Your task to perform on an android device: open app "Life360: Find Family & Friends" (install if not already installed), go to login, and select forgot password Image 0: 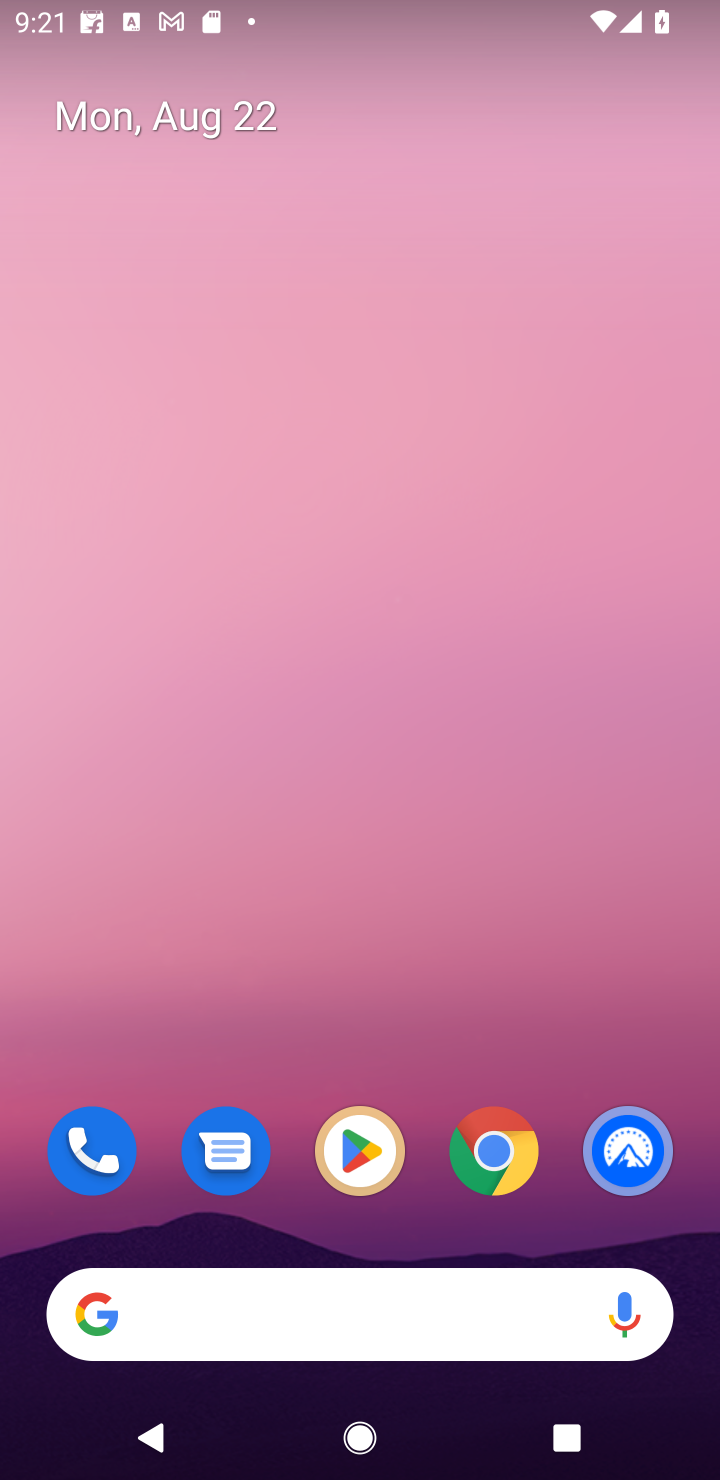
Step 0: click (366, 1142)
Your task to perform on an android device: open app "Life360: Find Family & Friends" (install if not already installed), go to login, and select forgot password Image 1: 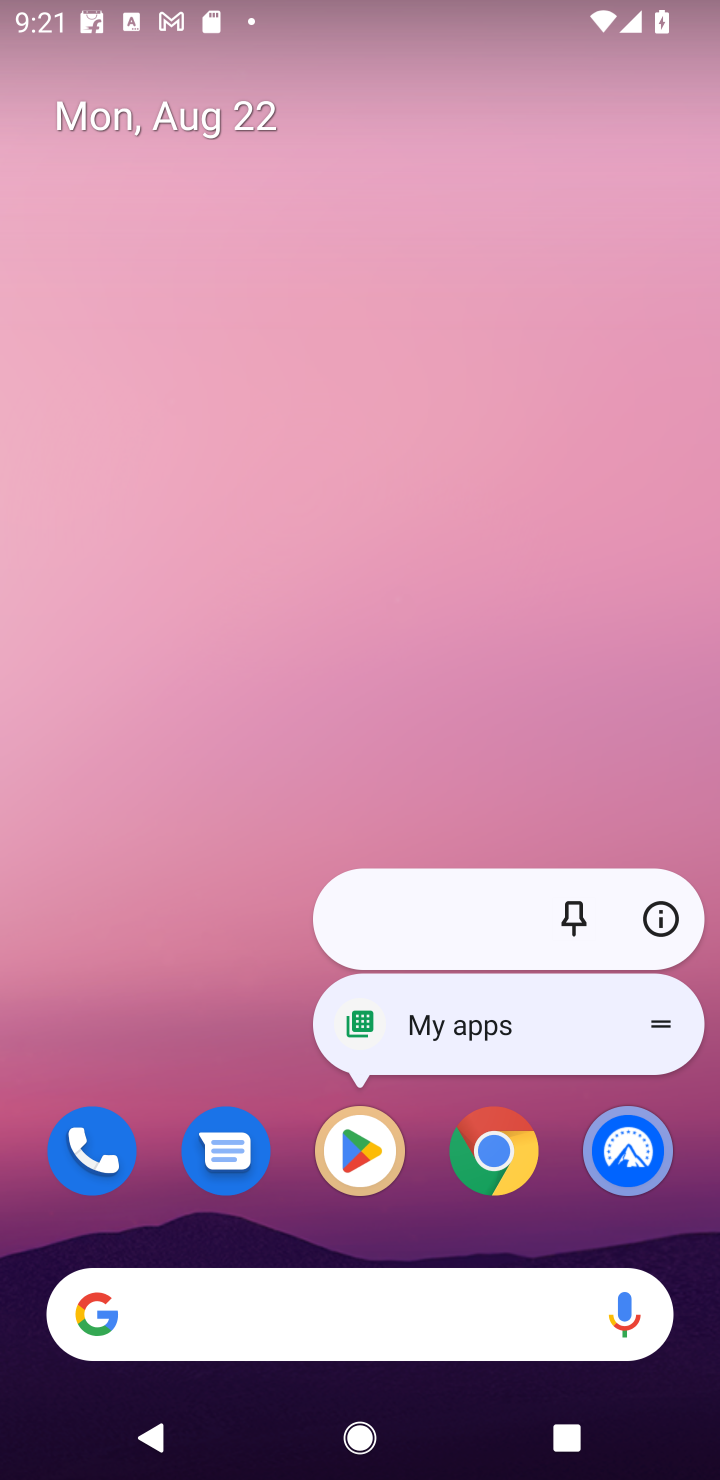
Step 1: click (366, 1147)
Your task to perform on an android device: open app "Life360: Find Family & Friends" (install if not already installed), go to login, and select forgot password Image 2: 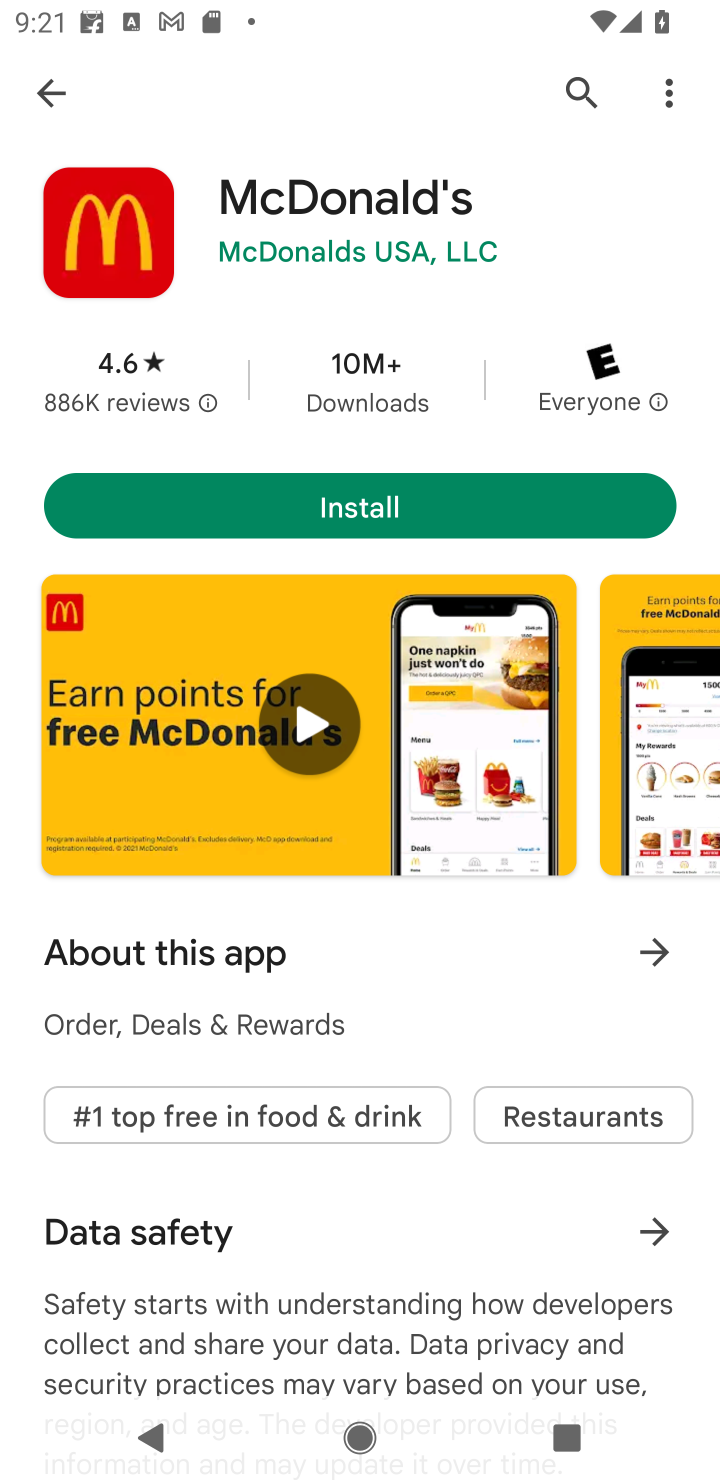
Step 2: click (581, 96)
Your task to perform on an android device: open app "Life360: Find Family & Friends" (install if not already installed), go to login, and select forgot password Image 3: 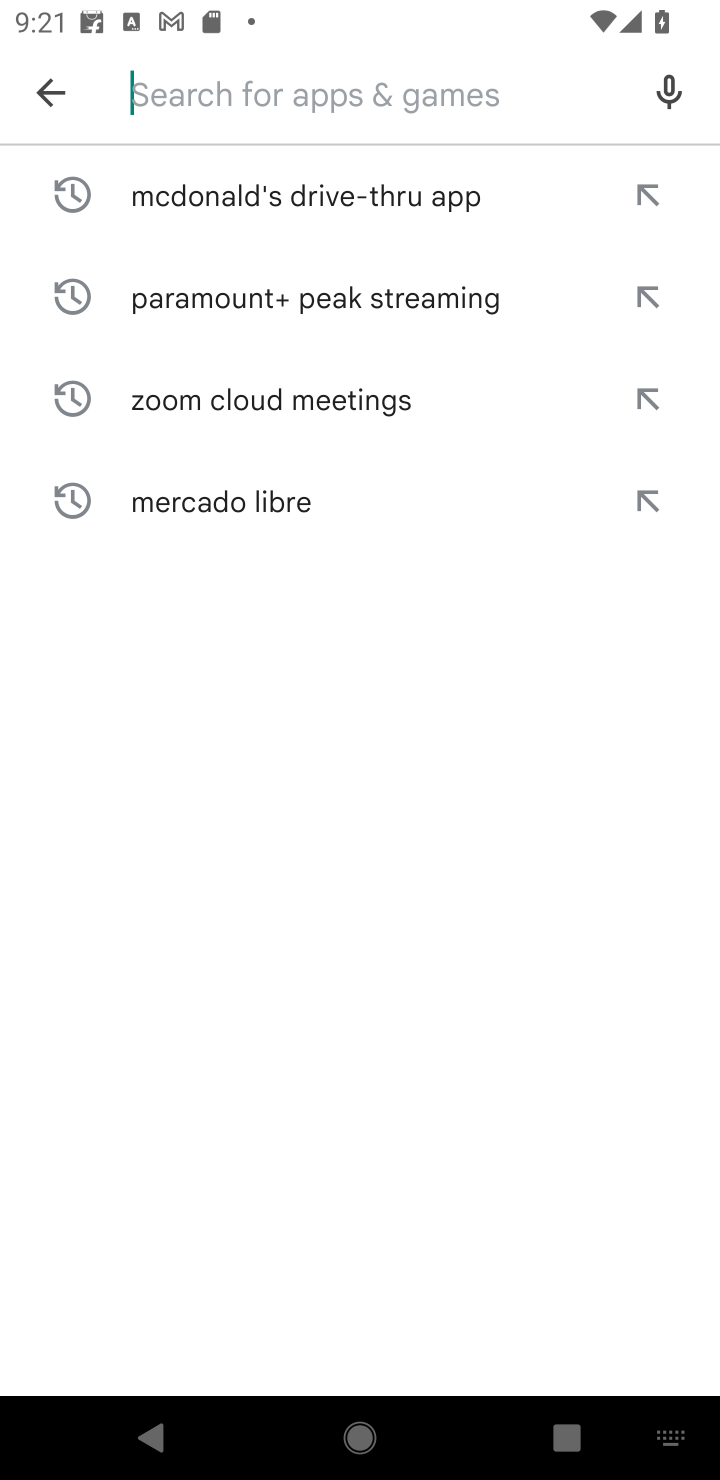
Step 3: type "Life360: Find Family & Friends"
Your task to perform on an android device: open app "Life360: Find Family & Friends" (install if not already installed), go to login, and select forgot password Image 4: 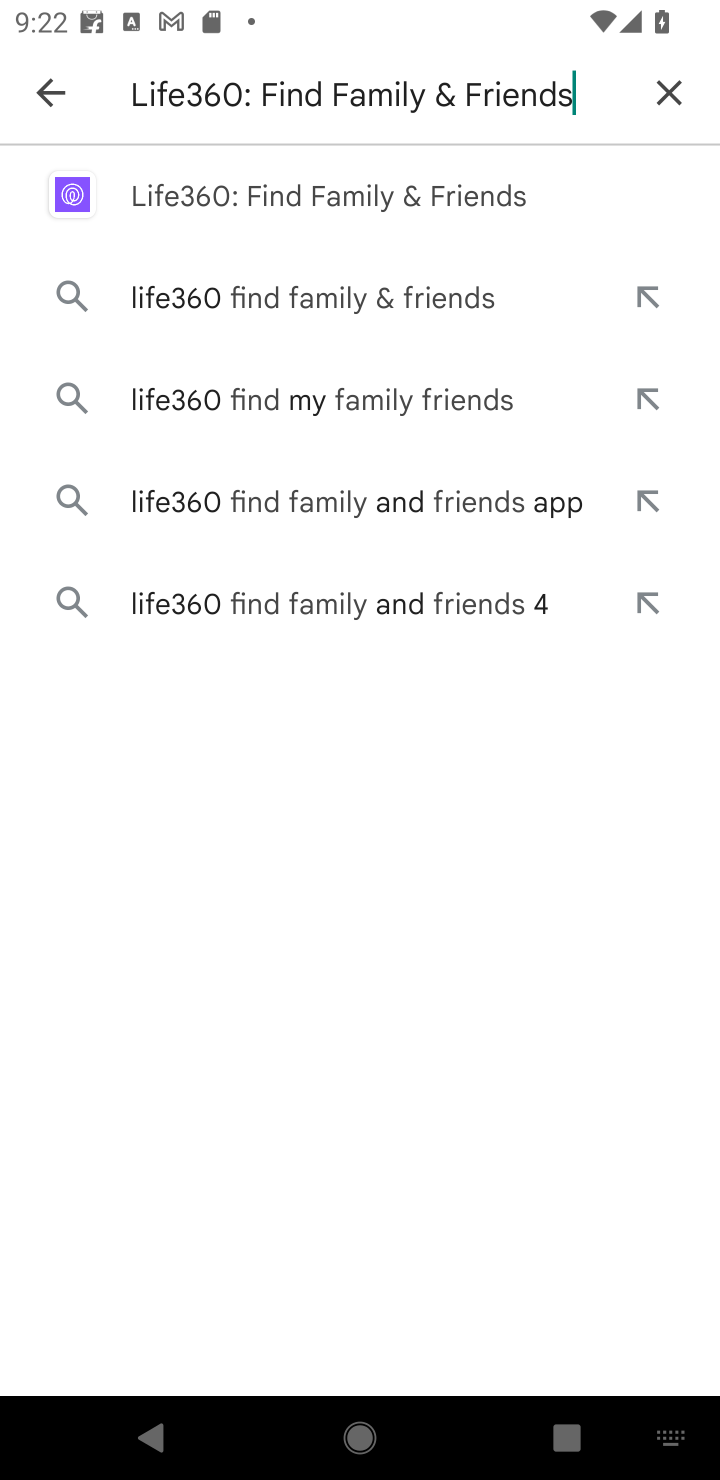
Step 4: click (272, 203)
Your task to perform on an android device: open app "Life360: Find Family & Friends" (install if not already installed), go to login, and select forgot password Image 5: 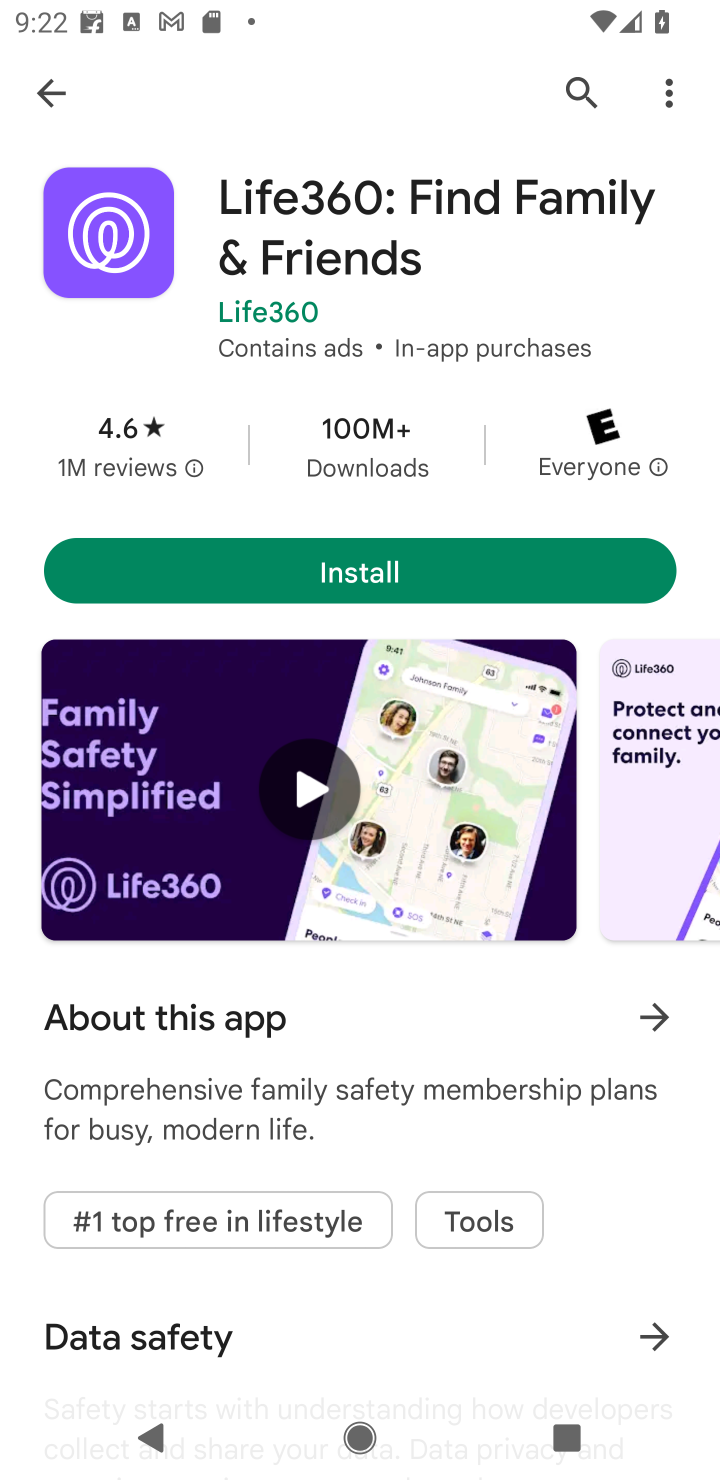
Step 5: click (364, 565)
Your task to perform on an android device: open app "Life360: Find Family & Friends" (install if not already installed), go to login, and select forgot password Image 6: 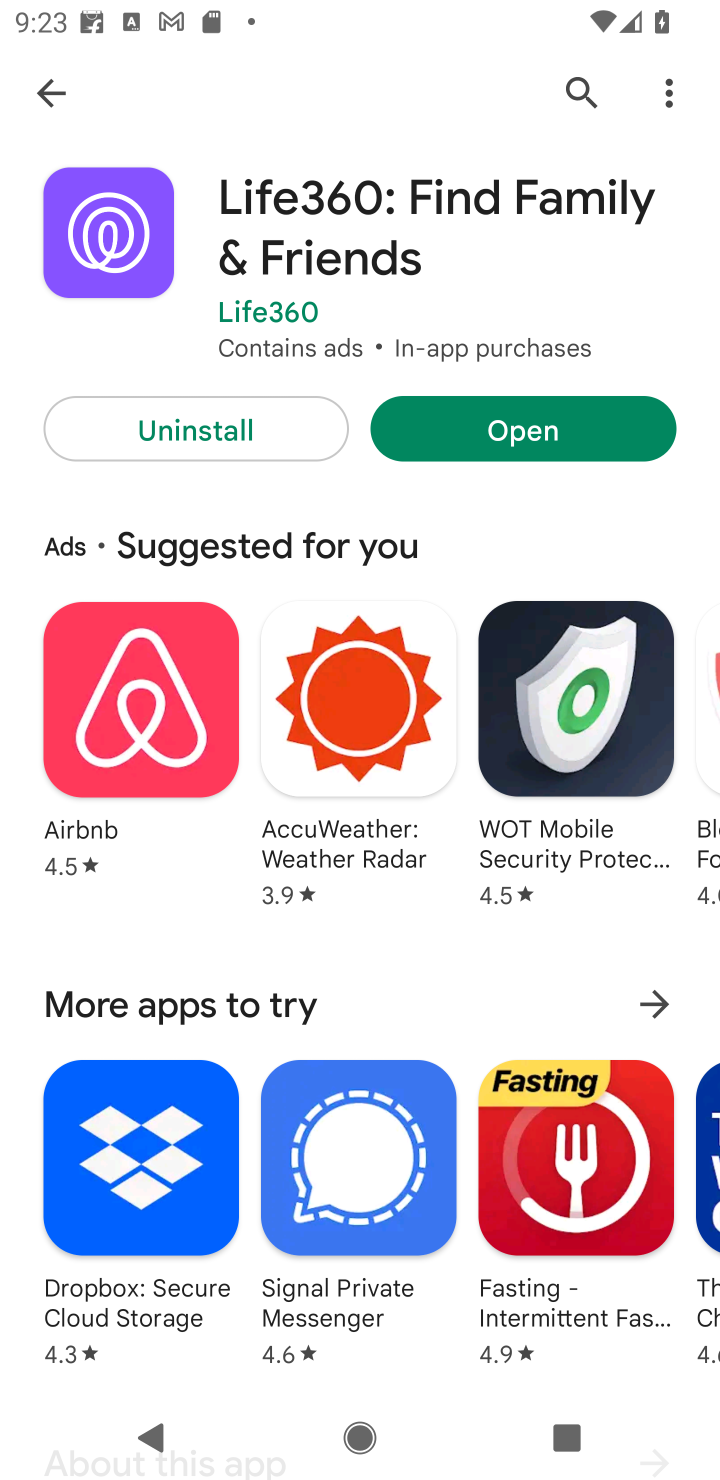
Step 6: click (535, 443)
Your task to perform on an android device: open app "Life360: Find Family & Friends" (install if not already installed), go to login, and select forgot password Image 7: 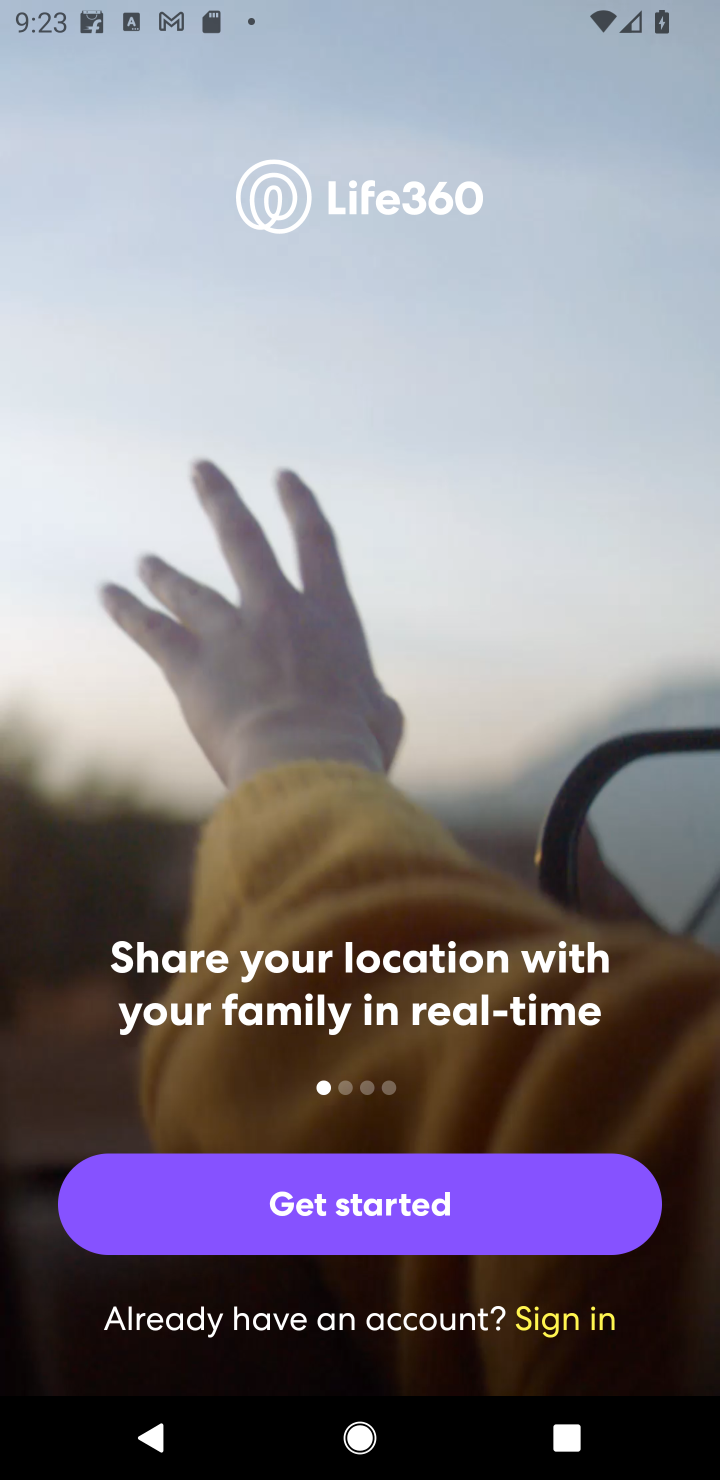
Step 7: click (539, 1314)
Your task to perform on an android device: open app "Life360: Find Family & Friends" (install if not already installed), go to login, and select forgot password Image 8: 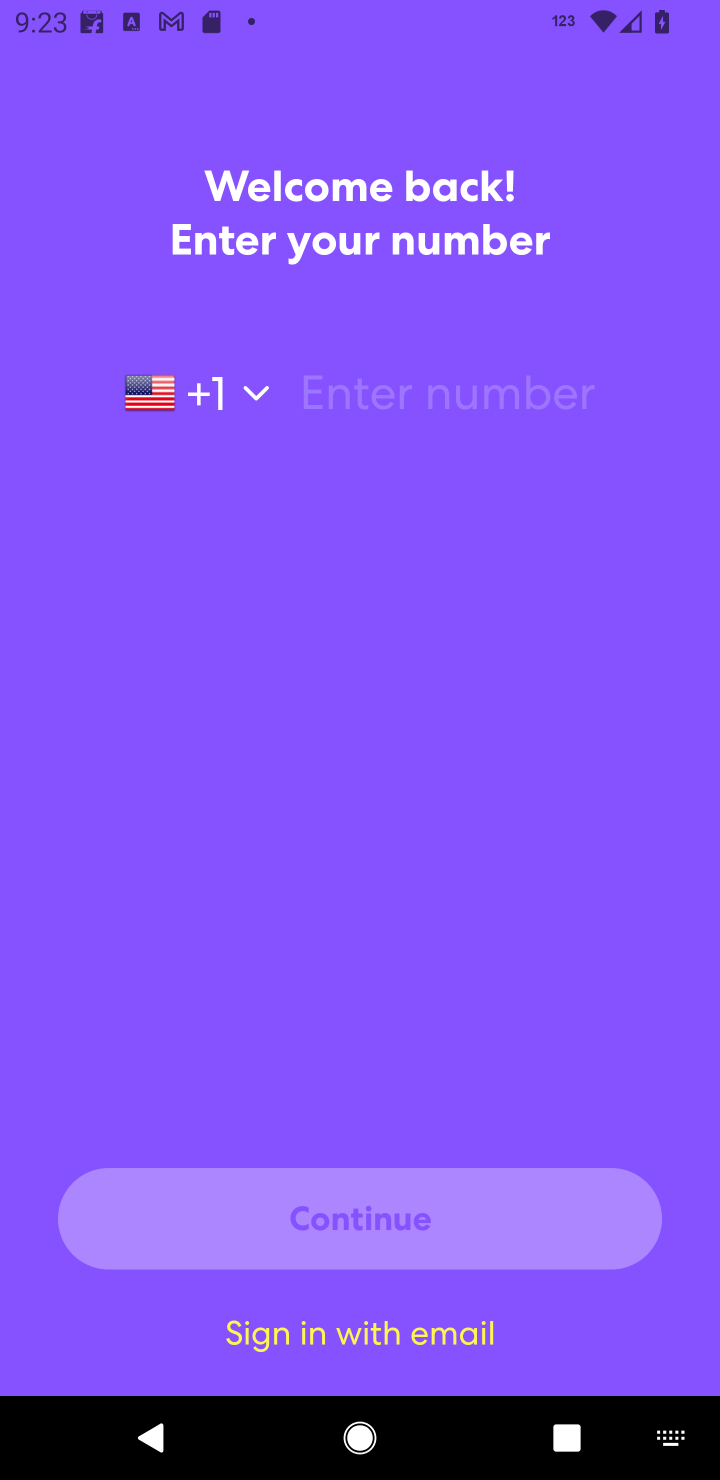
Step 8: click (408, 1334)
Your task to perform on an android device: open app "Life360: Find Family & Friends" (install if not already installed), go to login, and select forgot password Image 9: 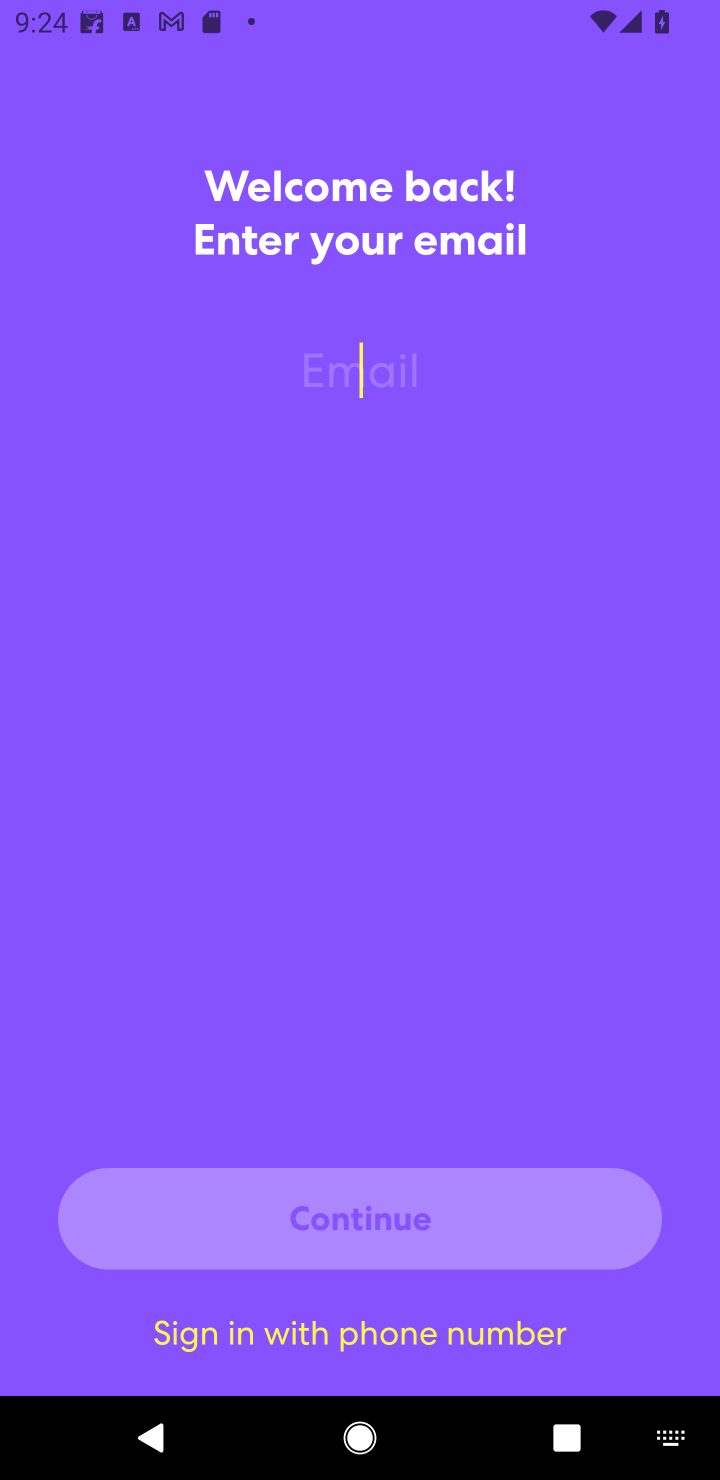
Step 9: task complete